Your task to perform on an android device: Open eBay Image 0: 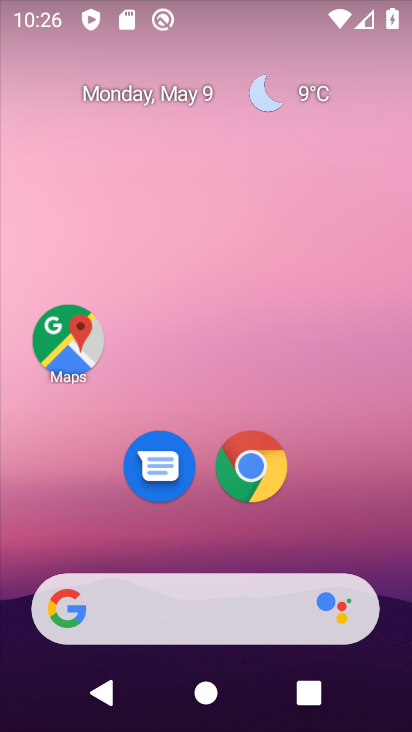
Step 0: click (237, 457)
Your task to perform on an android device: Open eBay Image 1: 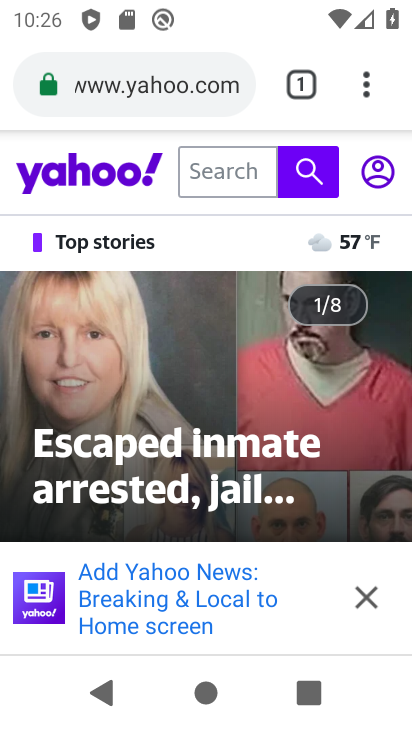
Step 1: click (298, 91)
Your task to perform on an android device: Open eBay Image 2: 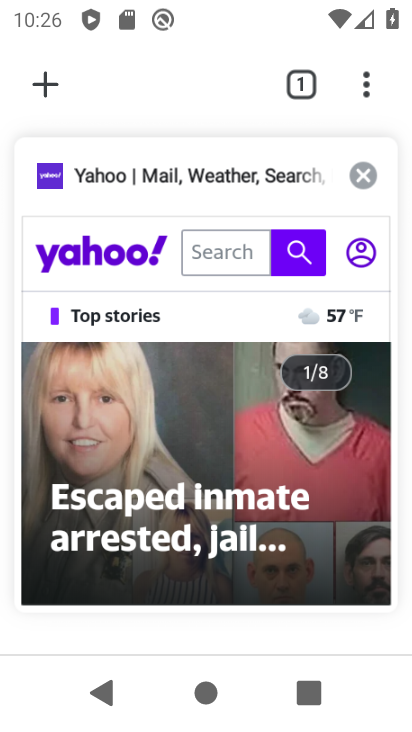
Step 2: click (355, 170)
Your task to perform on an android device: Open eBay Image 3: 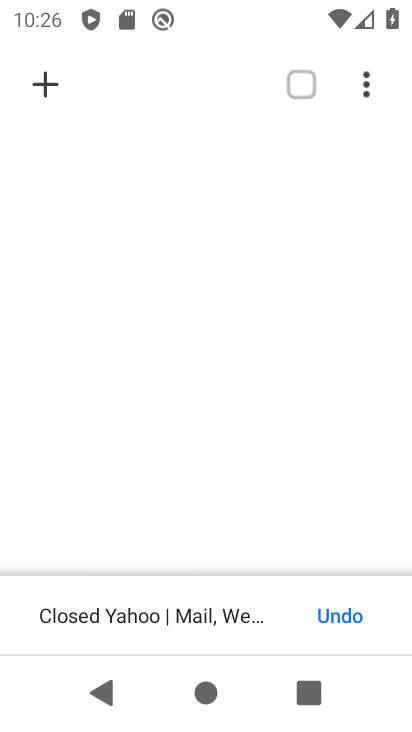
Step 3: click (49, 90)
Your task to perform on an android device: Open eBay Image 4: 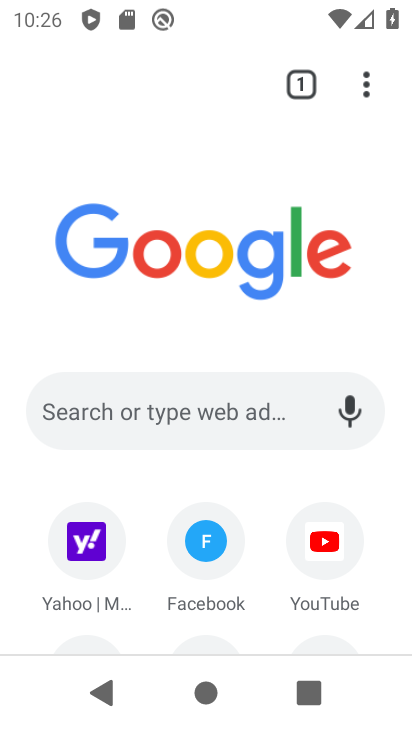
Step 4: drag from (254, 331) to (218, 141)
Your task to perform on an android device: Open eBay Image 5: 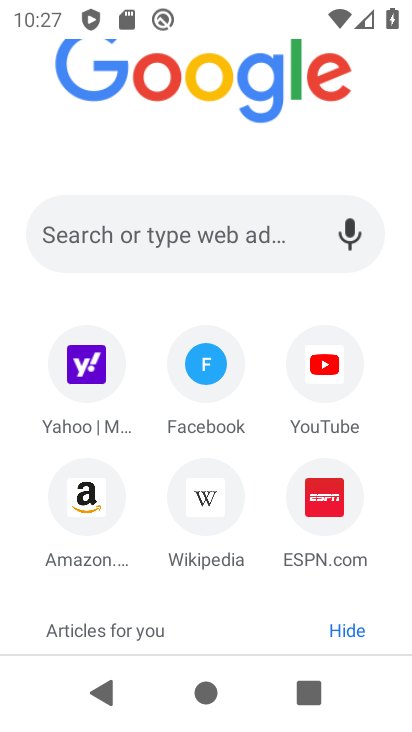
Step 5: click (179, 225)
Your task to perform on an android device: Open eBay Image 6: 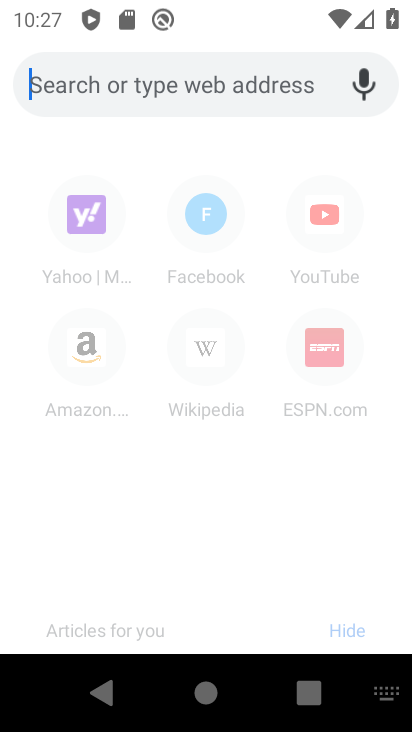
Step 6: type "ebay.com"
Your task to perform on an android device: Open eBay Image 7: 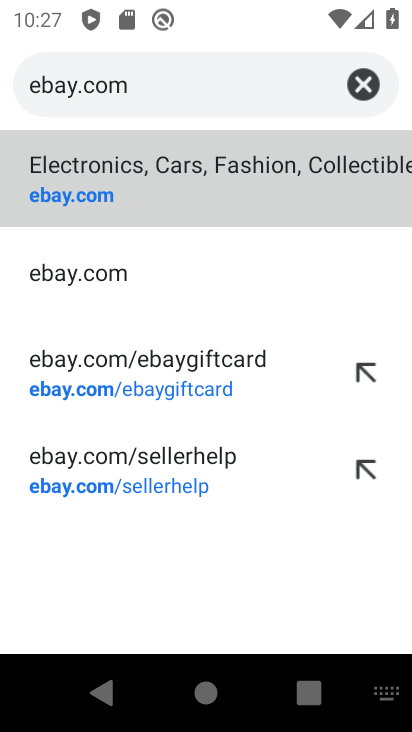
Step 7: click (166, 189)
Your task to perform on an android device: Open eBay Image 8: 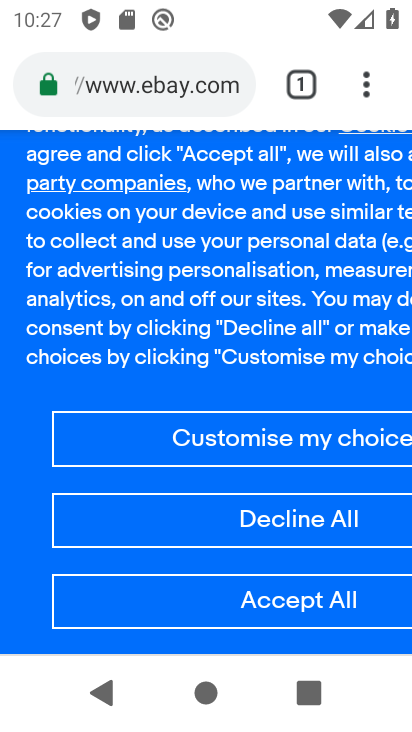
Step 8: click (335, 518)
Your task to perform on an android device: Open eBay Image 9: 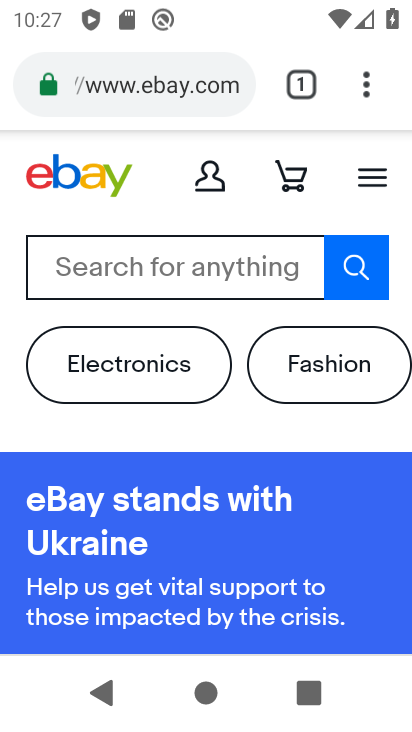
Step 9: task complete